Your task to perform on an android device: check google app version Image 0: 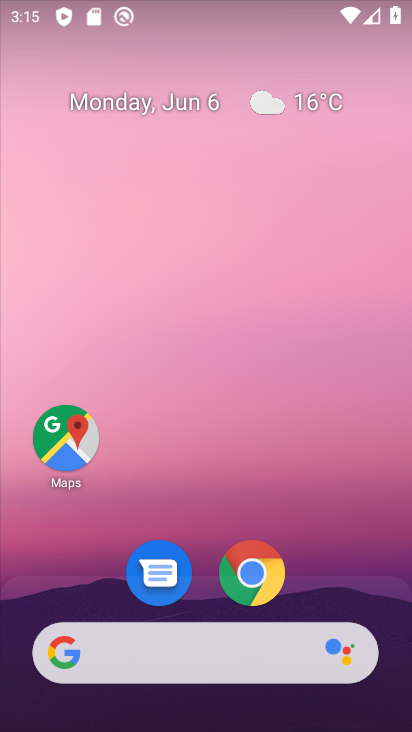
Step 0: drag from (209, 574) to (194, 178)
Your task to perform on an android device: check google app version Image 1: 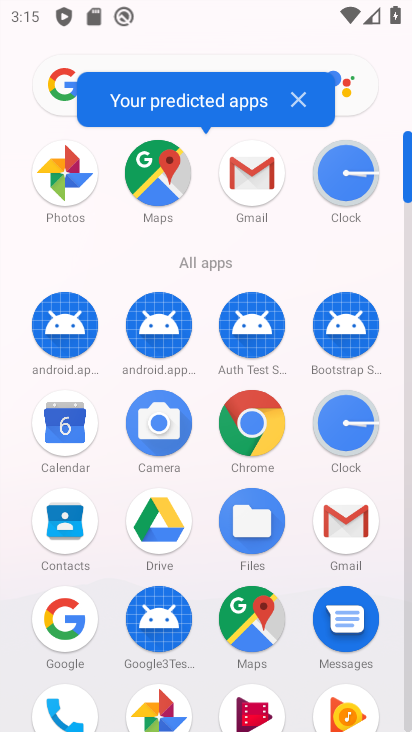
Step 1: click (64, 628)
Your task to perform on an android device: check google app version Image 2: 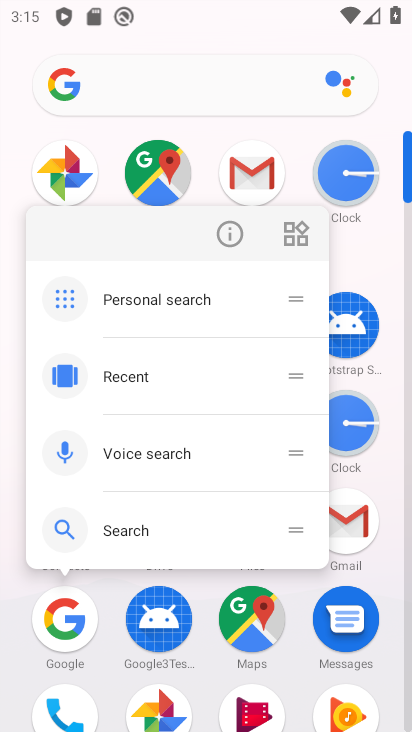
Step 2: click (226, 234)
Your task to perform on an android device: check google app version Image 3: 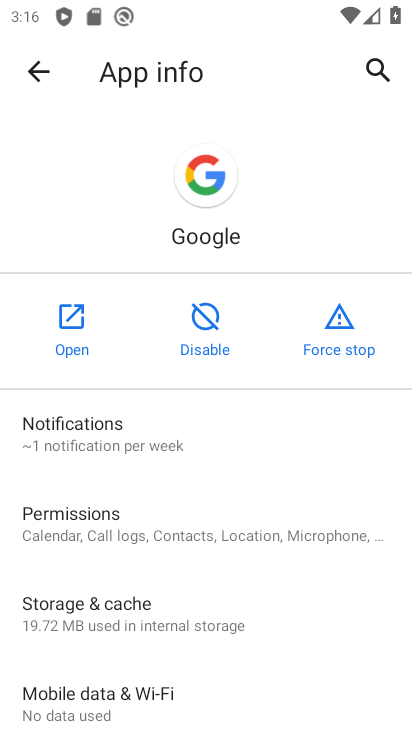
Step 3: drag from (148, 500) to (143, 197)
Your task to perform on an android device: check google app version Image 4: 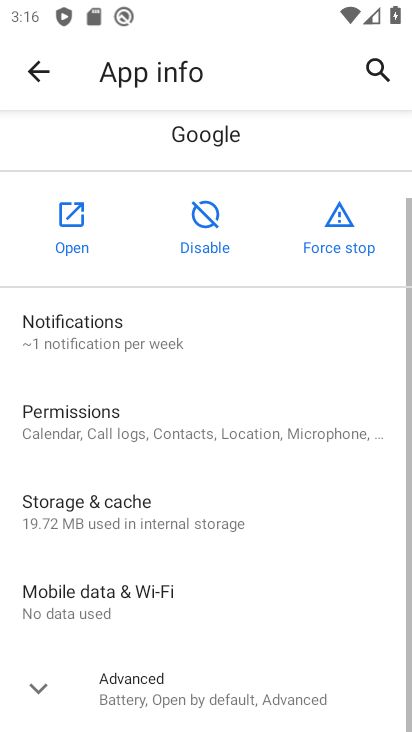
Step 4: click (141, 698)
Your task to perform on an android device: check google app version Image 5: 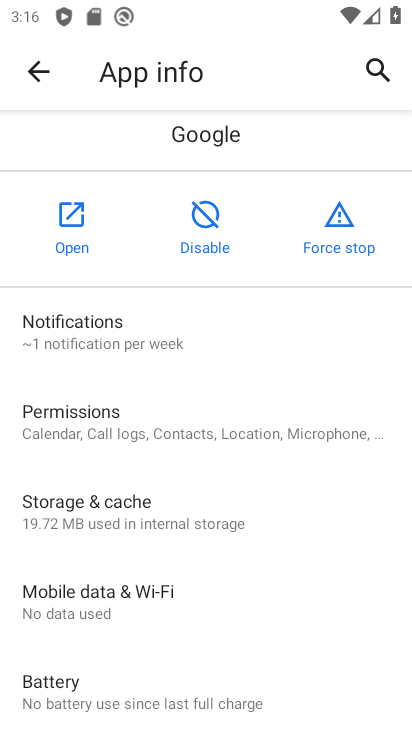
Step 5: task complete